Your task to perform on an android device: Go to network settings Image 0: 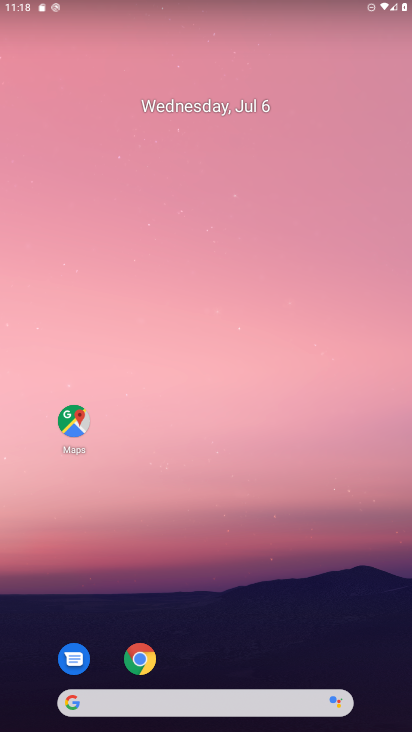
Step 0: drag from (279, 634) to (293, 18)
Your task to perform on an android device: Go to network settings Image 1: 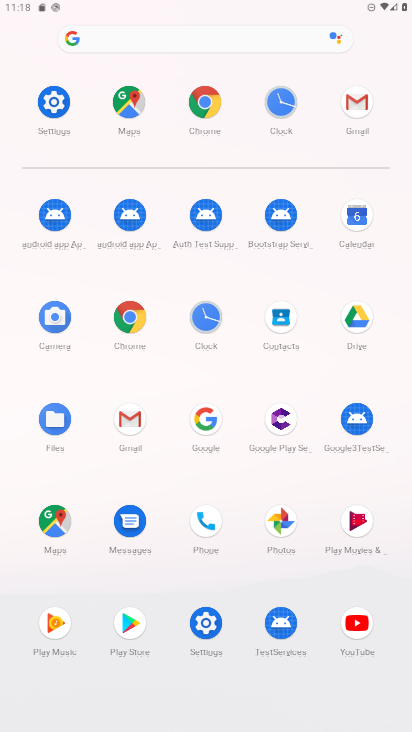
Step 1: click (58, 89)
Your task to perform on an android device: Go to network settings Image 2: 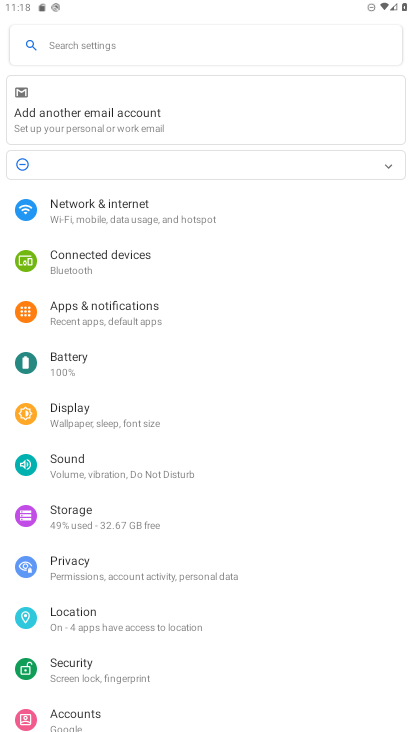
Step 2: press home button
Your task to perform on an android device: Go to network settings Image 3: 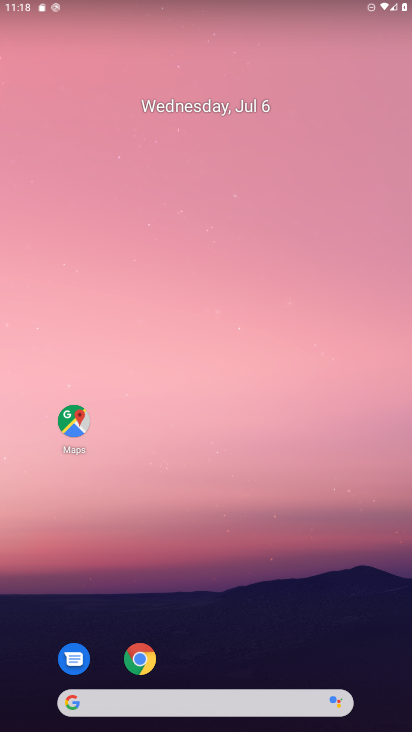
Step 3: drag from (212, 652) to (309, 2)
Your task to perform on an android device: Go to network settings Image 4: 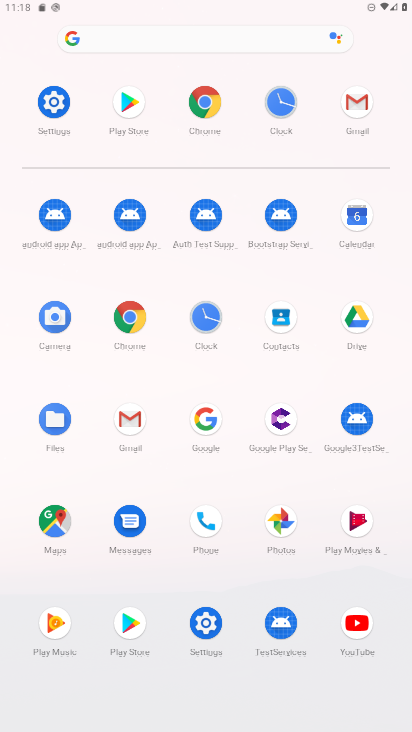
Step 4: click (55, 97)
Your task to perform on an android device: Go to network settings Image 5: 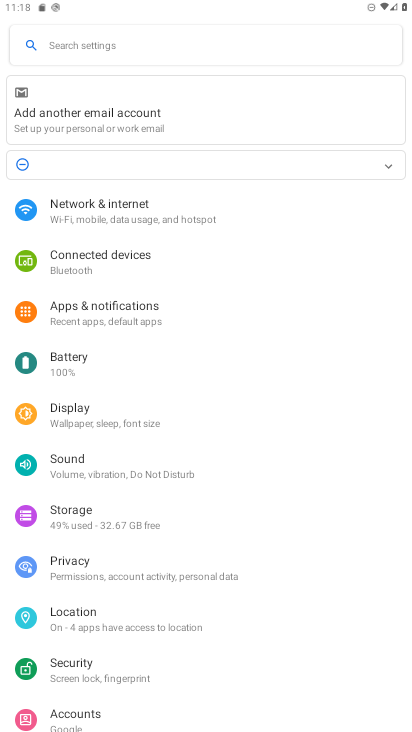
Step 5: click (144, 207)
Your task to perform on an android device: Go to network settings Image 6: 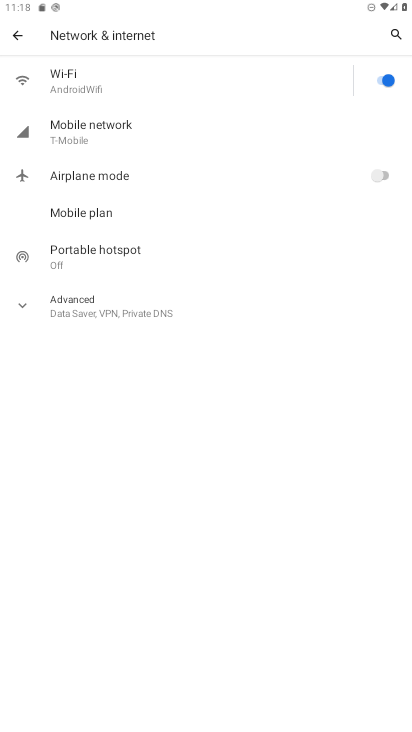
Step 6: task complete